Your task to perform on an android device: toggle airplane mode Image 0: 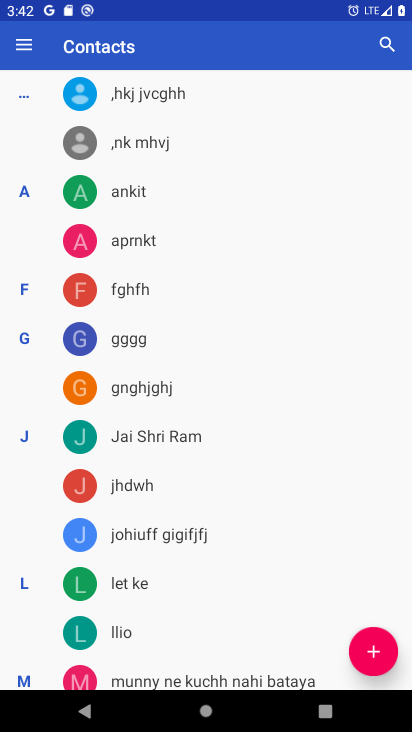
Step 0: press home button
Your task to perform on an android device: toggle airplane mode Image 1: 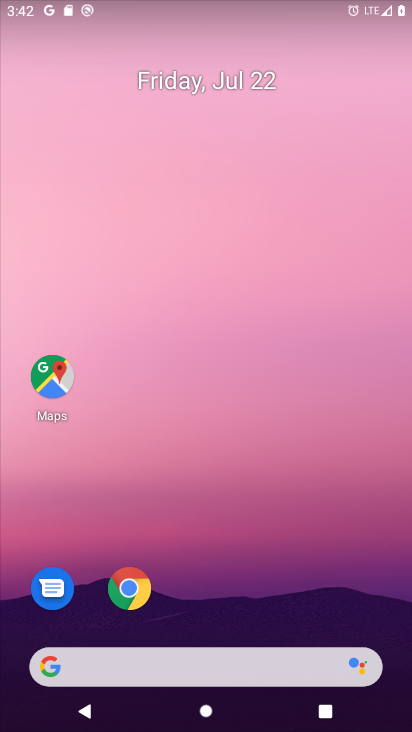
Step 1: drag from (187, 601) to (206, 437)
Your task to perform on an android device: toggle airplane mode Image 2: 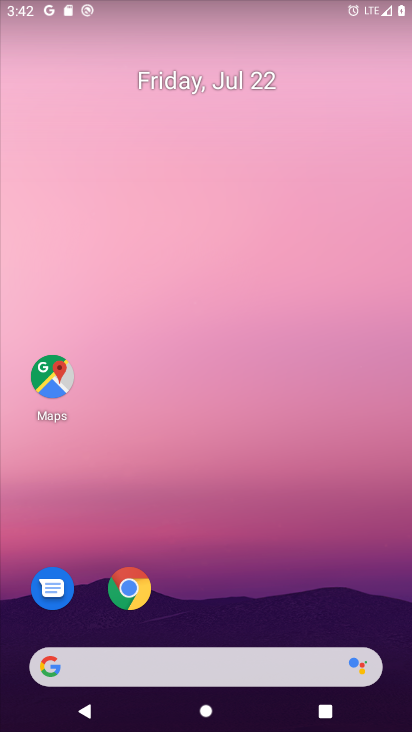
Step 2: drag from (208, 8) to (116, 672)
Your task to perform on an android device: toggle airplane mode Image 3: 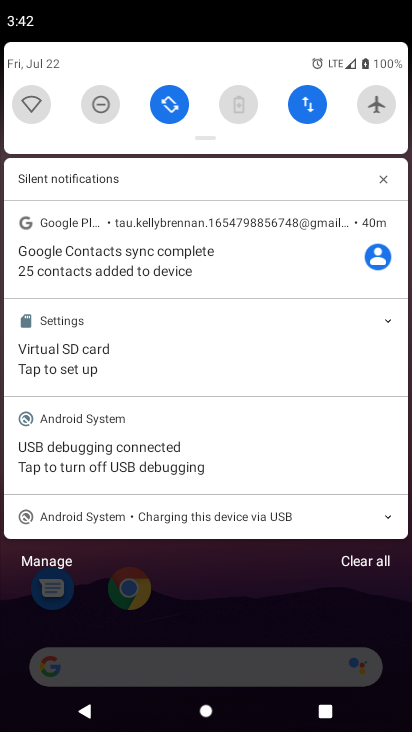
Step 3: click (366, 106)
Your task to perform on an android device: toggle airplane mode Image 4: 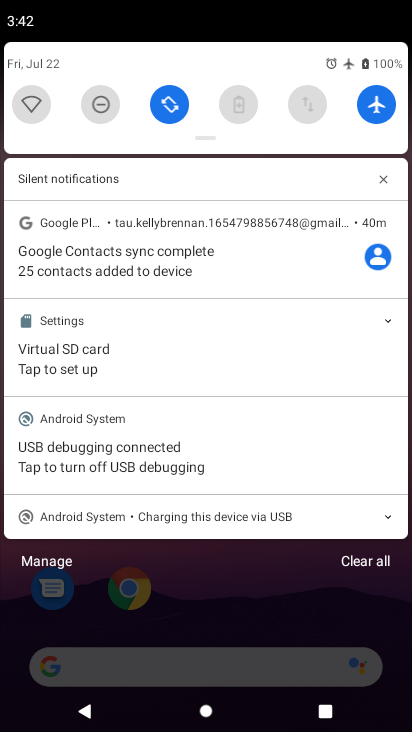
Step 4: task complete